Your task to perform on an android device: turn on wifi Image 0: 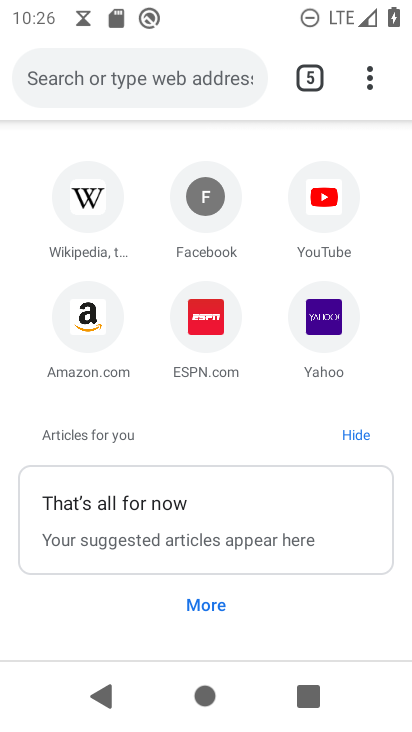
Step 0: press back button
Your task to perform on an android device: turn on wifi Image 1: 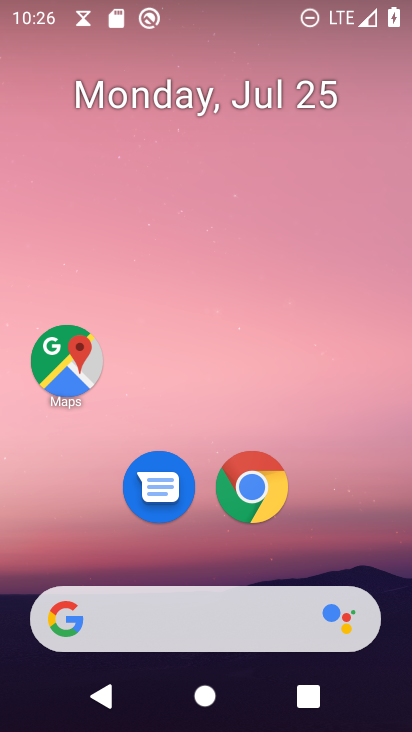
Step 1: drag from (114, 9) to (162, 536)
Your task to perform on an android device: turn on wifi Image 2: 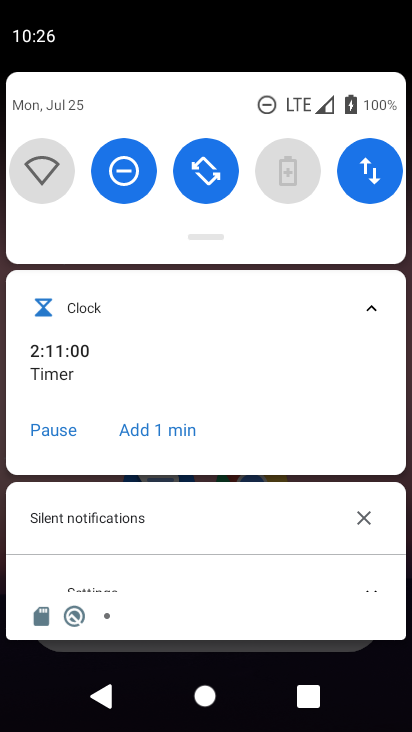
Step 2: click (47, 176)
Your task to perform on an android device: turn on wifi Image 3: 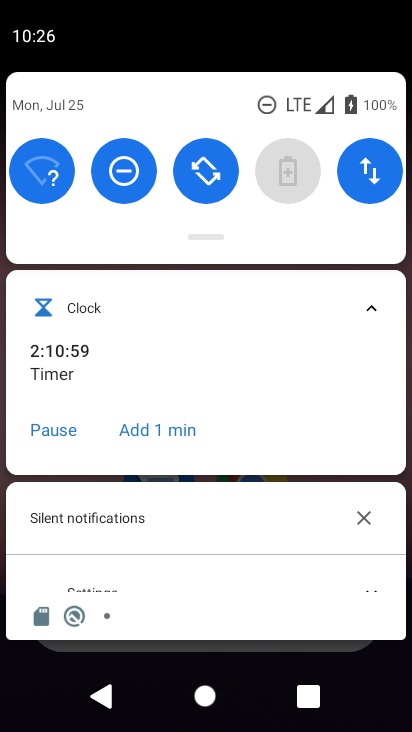
Step 3: task complete